Your task to perform on an android device: open chrome and create a bookmark for the current page Image 0: 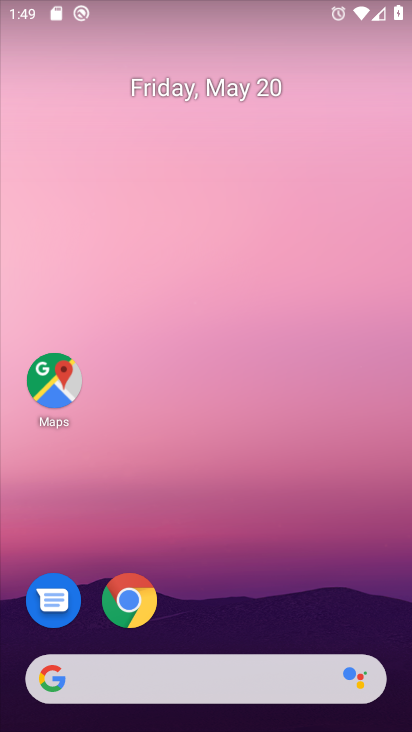
Step 0: click (145, 609)
Your task to perform on an android device: open chrome and create a bookmark for the current page Image 1: 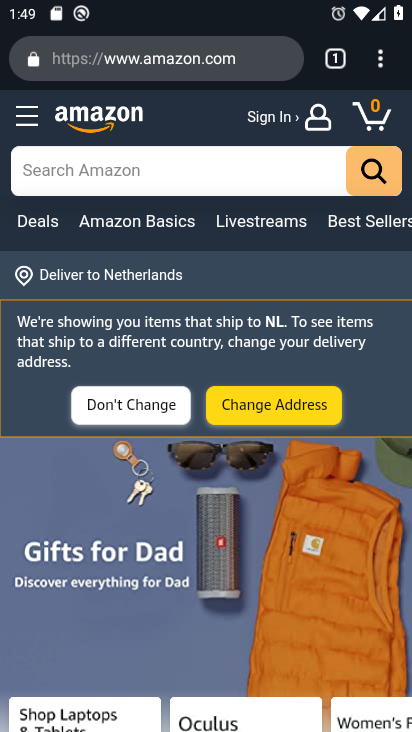
Step 1: click (380, 71)
Your task to perform on an android device: open chrome and create a bookmark for the current page Image 2: 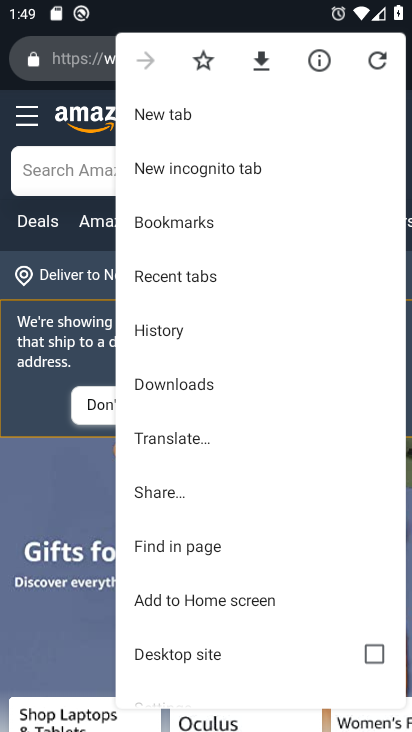
Step 2: click (198, 59)
Your task to perform on an android device: open chrome and create a bookmark for the current page Image 3: 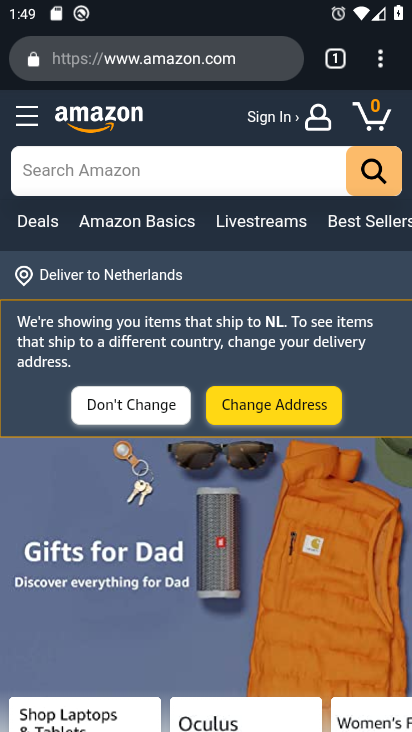
Step 3: task complete